Your task to perform on an android device: open app "AliExpress" Image 0: 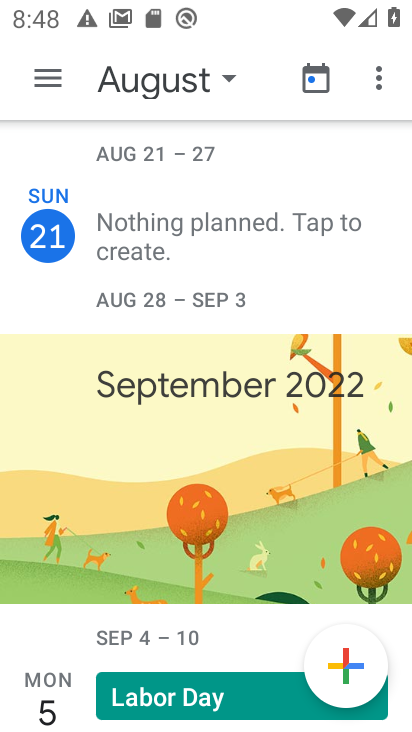
Step 0: press home button
Your task to perform on an android device: open app "AliExpress" Image 1: 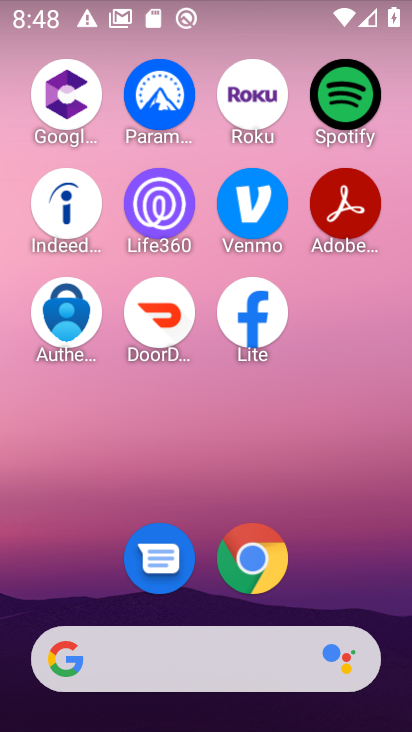
Step 1: drag from (215, 691) to (353, 3)
Your task to perform on an android device: open app "AliExpress" Image 2: 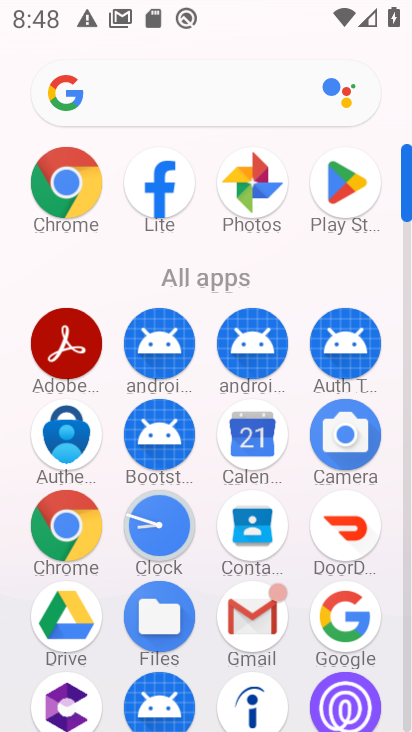
Step 2: click (341, 182)
Your task to perform on an android device: open app "AliExpress" Image 3: 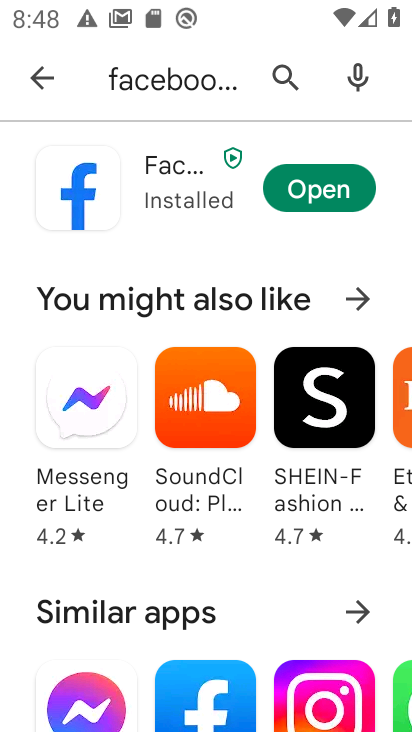
Step 3: click (281, 83)
Your task to perform on an android device: open app "AliExpress" Image 4: 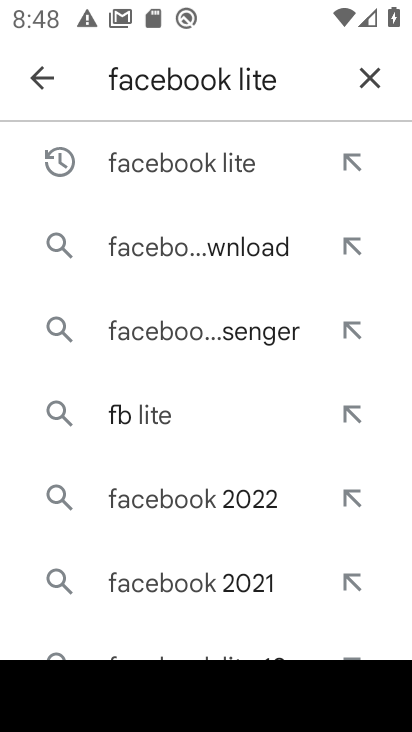
Step 4: click (376, 77)
Your task to perform on an android device: open app "AliExpress" Image 5: 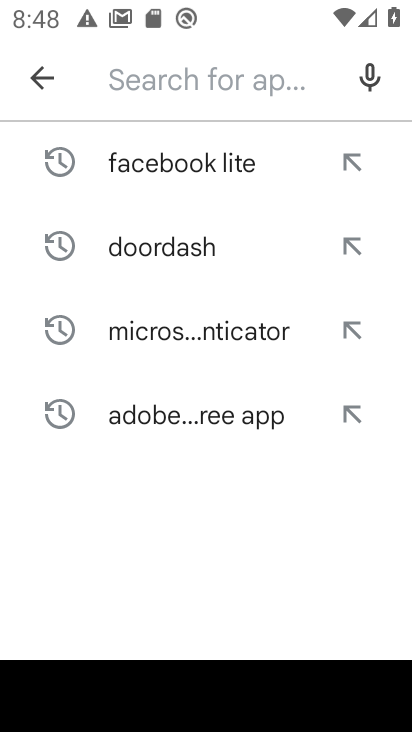
Step 5: type "aliexpress"
Your task to perform on an android device: open app "AliExpress" Image 6: 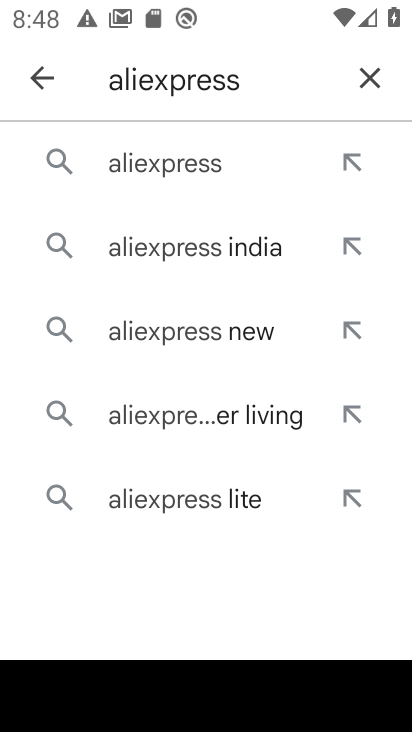
Step 6: click (133, 178)
Your task to perform on an android device: open app "AliExpress" Image 7: 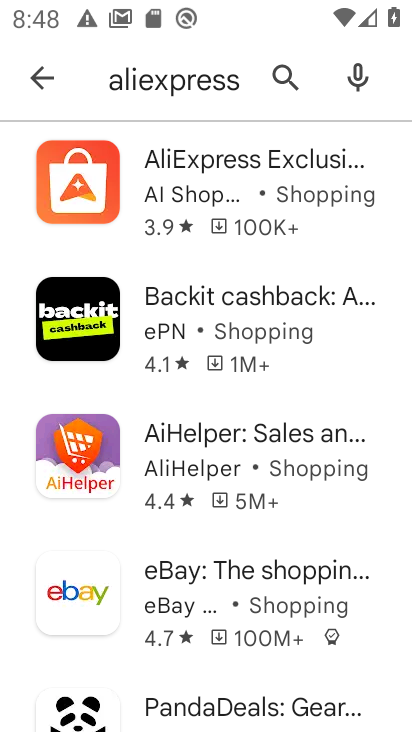
Step 7: click (176, 178)
Your task to perform on an android device: open app "AliExpress" Image 8: 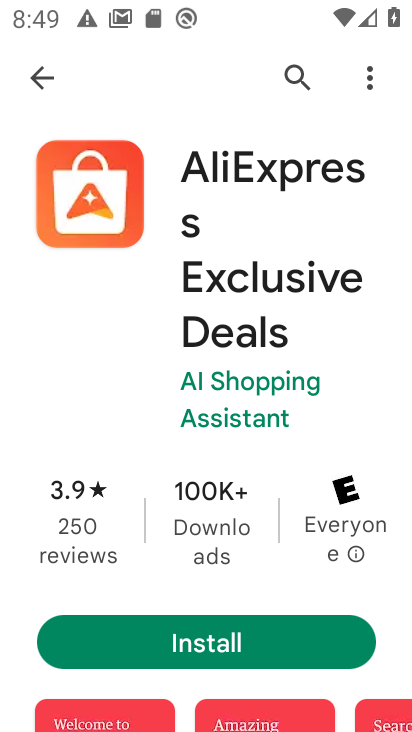
Step 8: task complete